Your task to perform on an android device: Open Google Chrome Image 0: 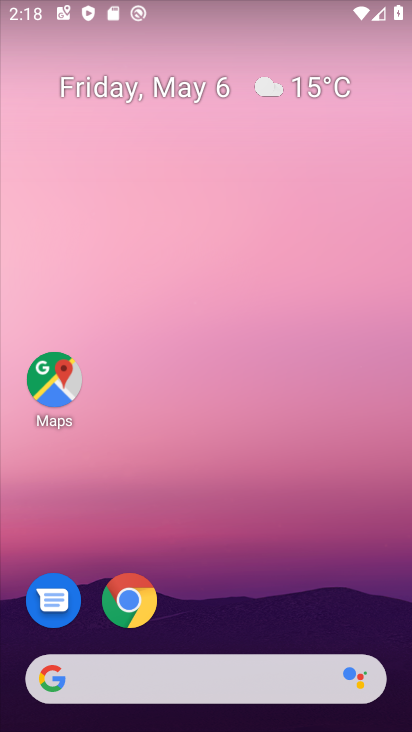
Step 0: drag from (328, 526) to (329, 4)
Your task to perform on an android device: Open Google Chrome Image 1: 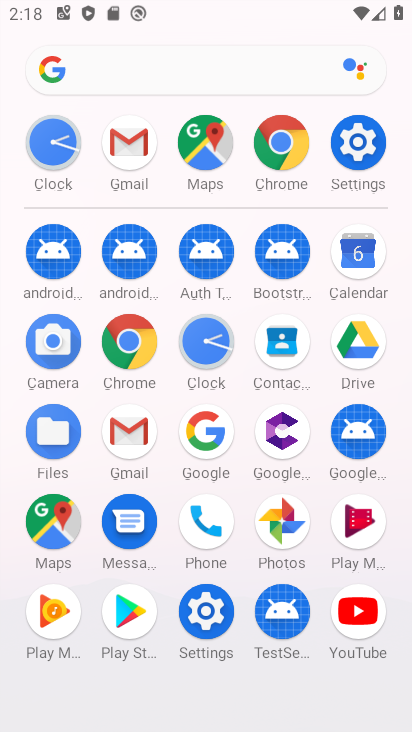
Step 1: drag from (14, 569) to (7, 271)
Your task to perform on an android device: Open Google Chrome Image 2: 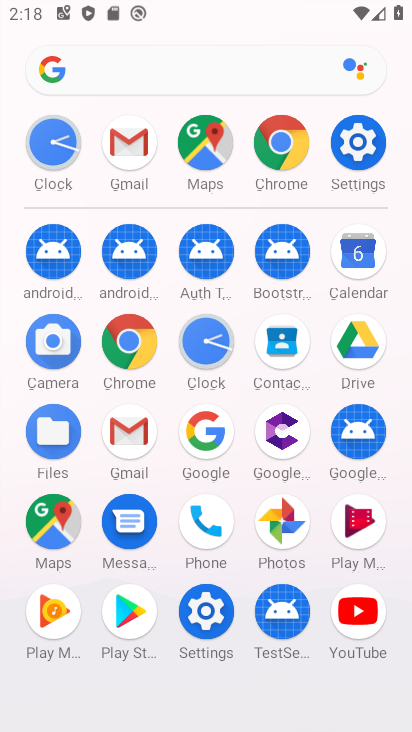
Step 2: click (127, 341)
Your task to perform on an android device: Open Google Chrome Image 3: 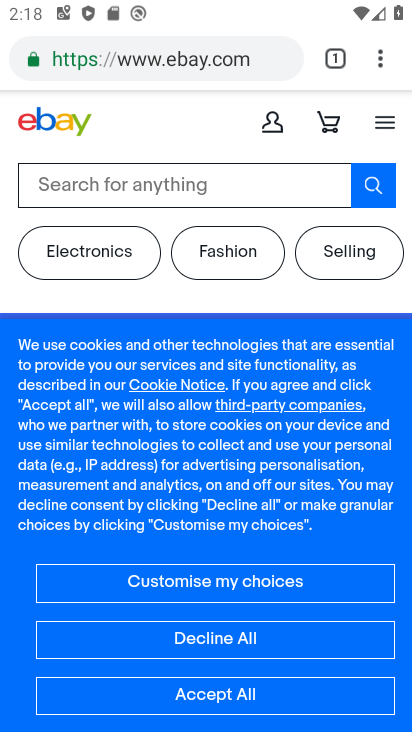
Step 3: task complete